Your task to perform on an android device: Is it going to rain this weekend? Image 0: 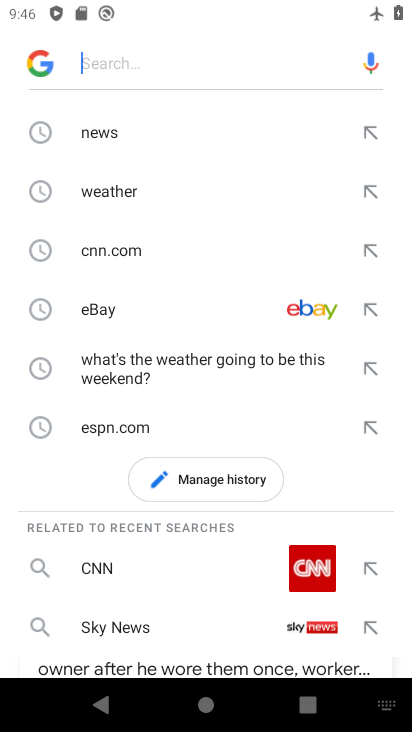
Step 0: click (103, 193)
Your task to perform on an android device: Is it going to rain this weekend? Image 1: 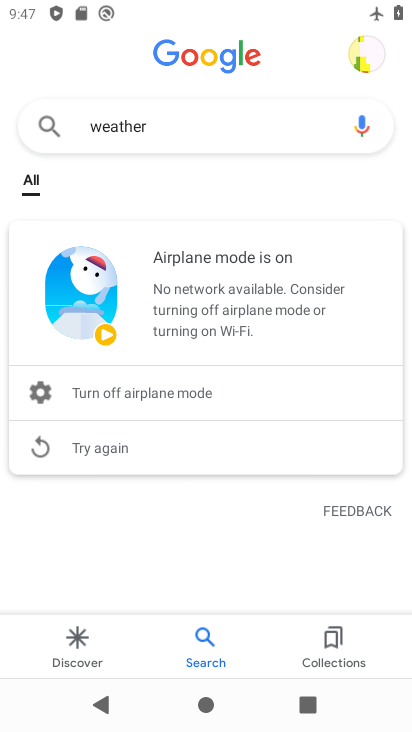
Step 1: task complete